Your task to perform on an android device: Go to location settings Image 0: 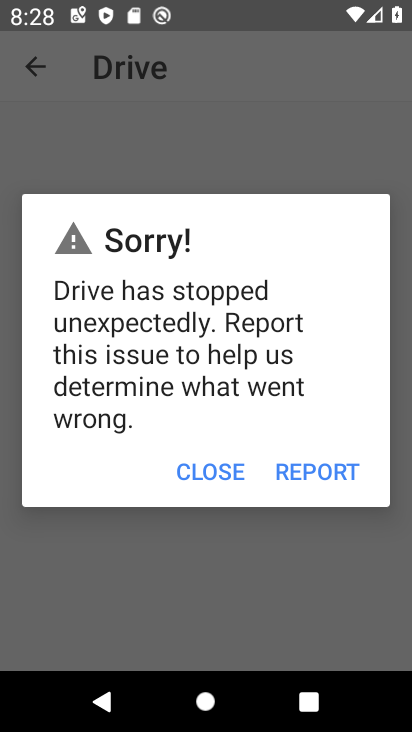
Step 0: press home button
Your task to perform on an android device: Go to location settings Image 1: 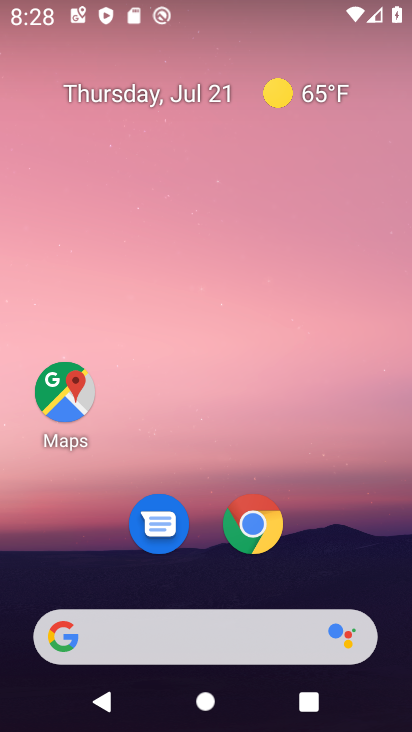
Step 1: drag from (211, 616) to (237, 124)
Your task to perform on an android device: Go to location settings Image 2: 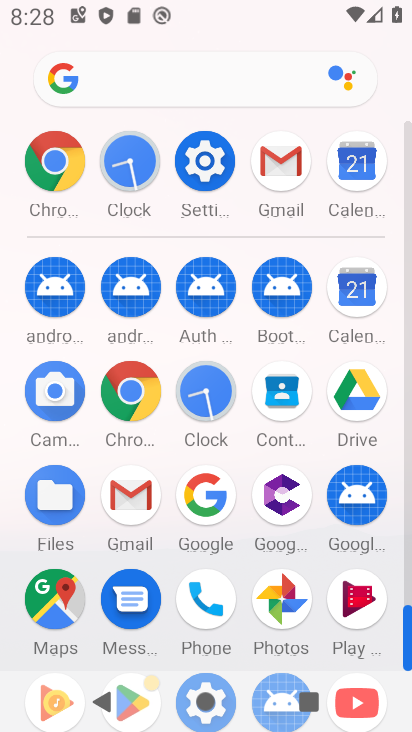
Step 2: click (215, 164)
Your task to perform on an android device: Go to location settings Image 3: 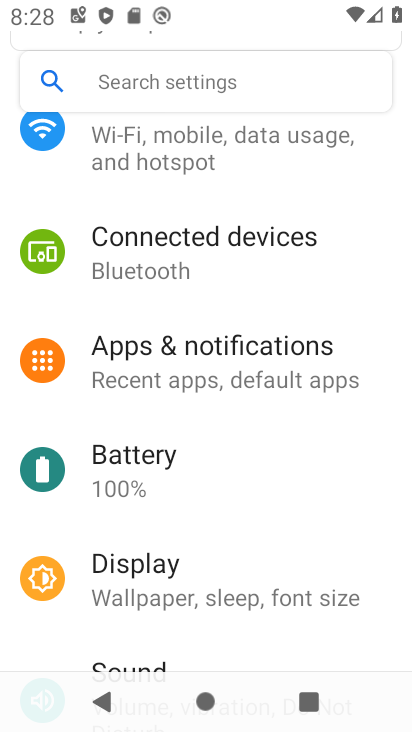
Step 3: drag from (232, 582) to (278, 166)
Your task to perform on an android device: Go to location settings Image 4: 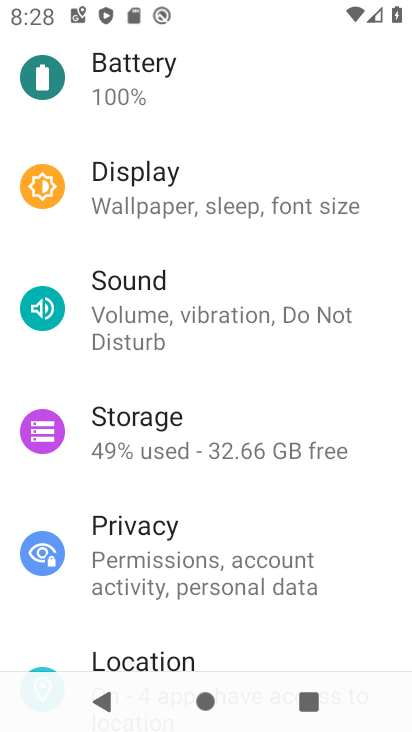
Step 4: click (161, 658)
Your task to perform on an android device: Go to location settings Image 5: 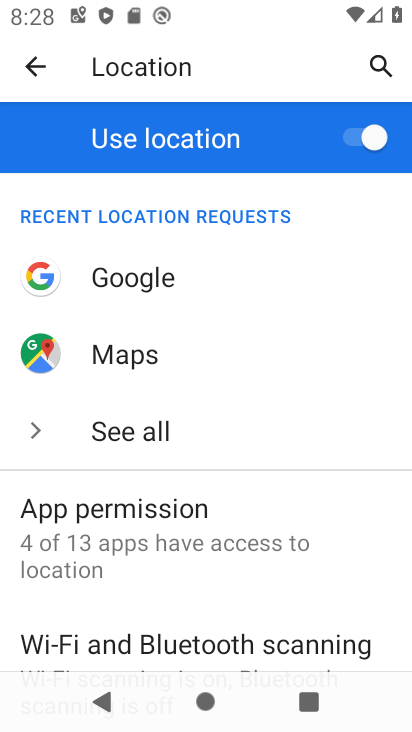
Step 5: task complete